Your task to perform on an android device: Open calendar and show me the second week of next month Image 0: 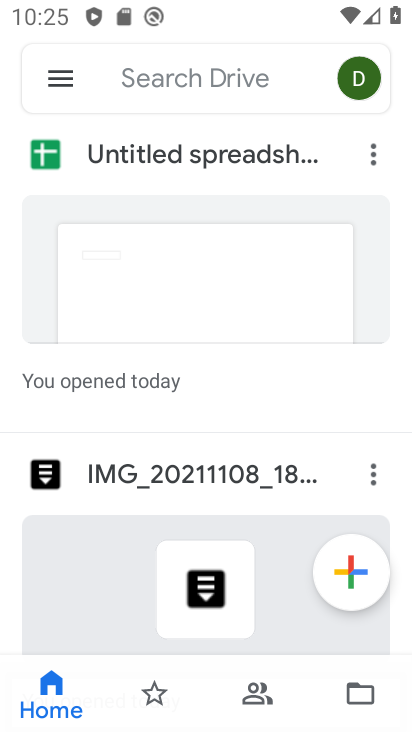
Step 0: press home button
Your task to perform on an android device: Open calendar and show me the second week of next month Image 1: 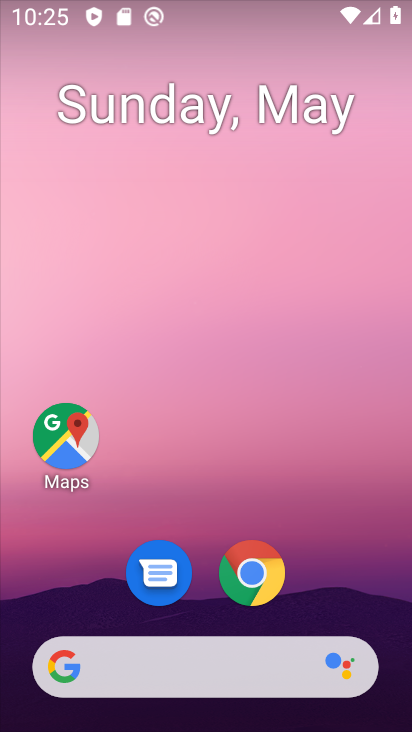
Step 1: drag from (228, 478) to (218, 76)
Your task to perform on an android device: Open calendar and show me the second week of next month Image 2: 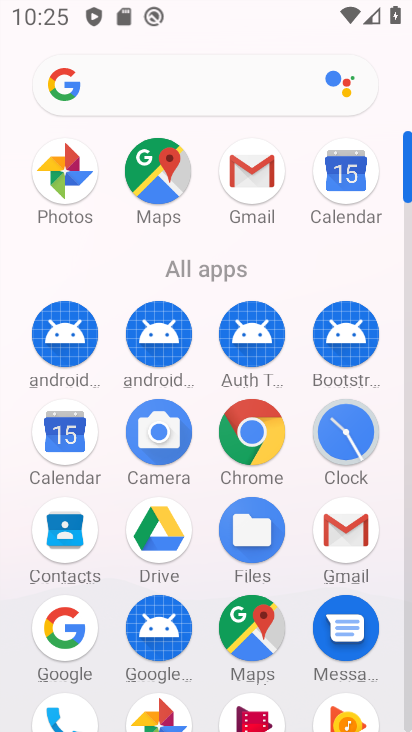
Step 2: click (336, 176)
Your task to perform on an android device: Open calendar and show me the second week of next month Image 3: 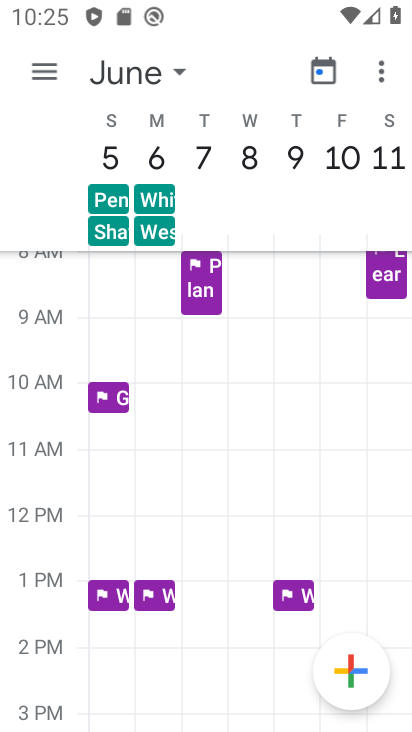
Step 3: task complete